Your task to perform on an android device: change your default location settings in chrome Image 0: 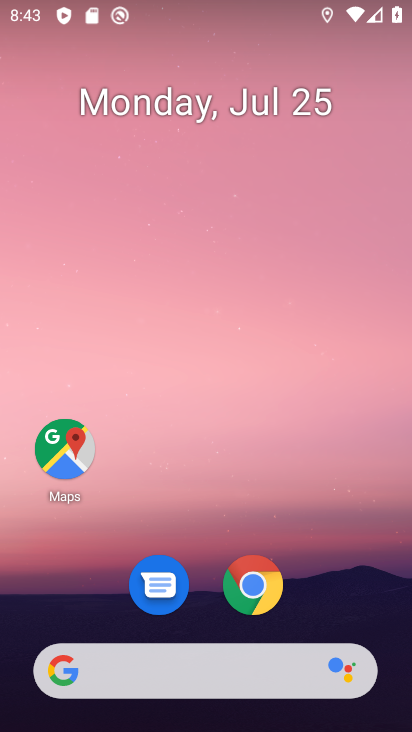
Step 0: click (253, 592)
Your task to perform on an android device: change your default location settings in chrome Image 1: 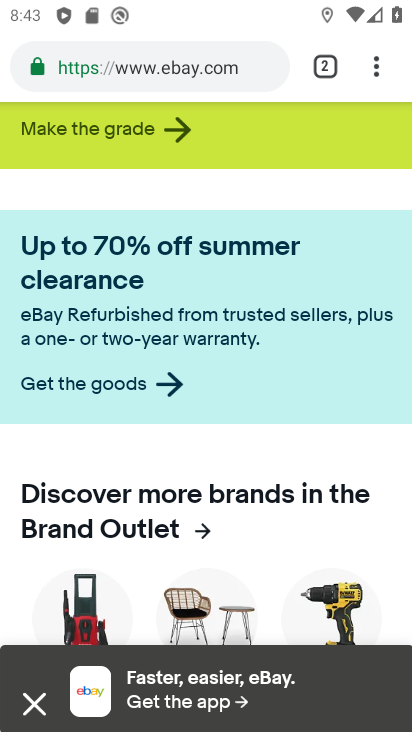
Step 1: drag from (373, 66) to (197, 585)
Your task to perform on an android device: change your default location settings in chrome Image 2: 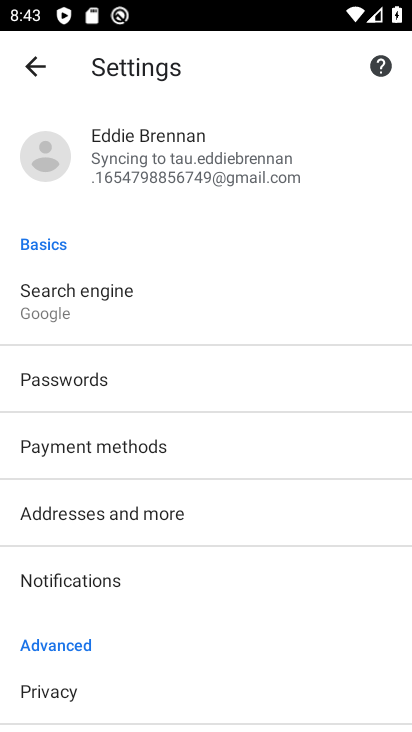
Step 2: drag from (170, 644) to (321, 267)
Your task to perform on an android device: change your default location settings in chrome Image 3: 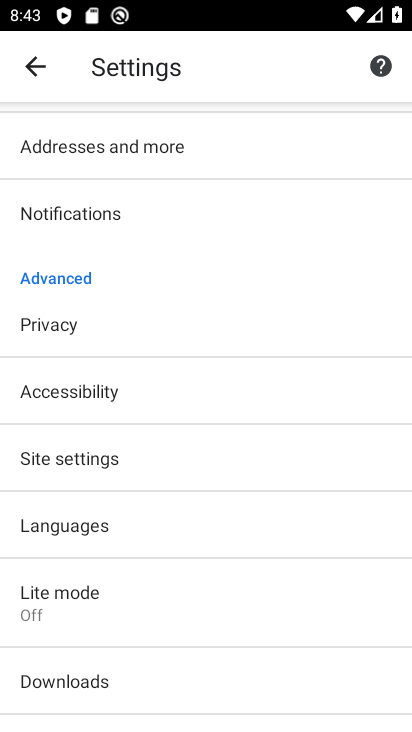
Step 3: click (105, 460)
Your task to perform on an android device: change your default location settings in chrome Image 4: 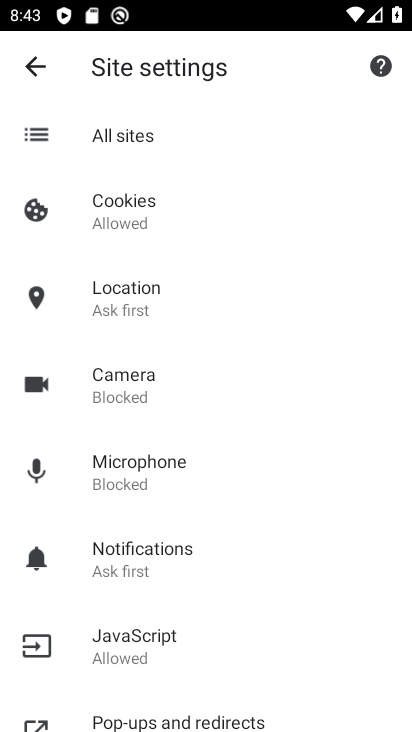
Step 4: click (153, 298)
Your task to perform on an android device: change your default location settings in chrome Image 5: 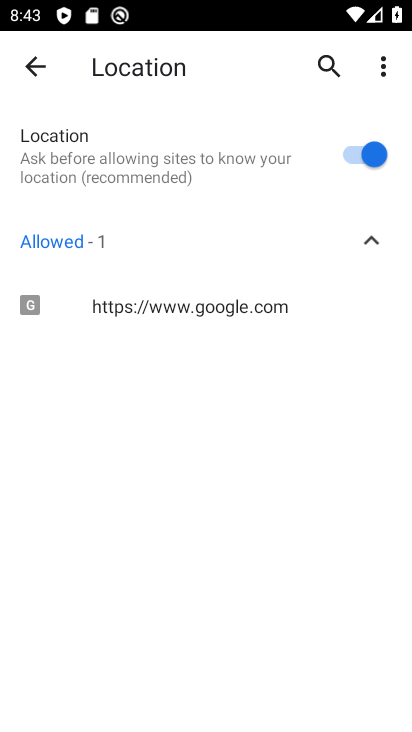
Step 5: click (354, 155)
Your task to perform on an android device: change your default location settings in chrome Image 6: 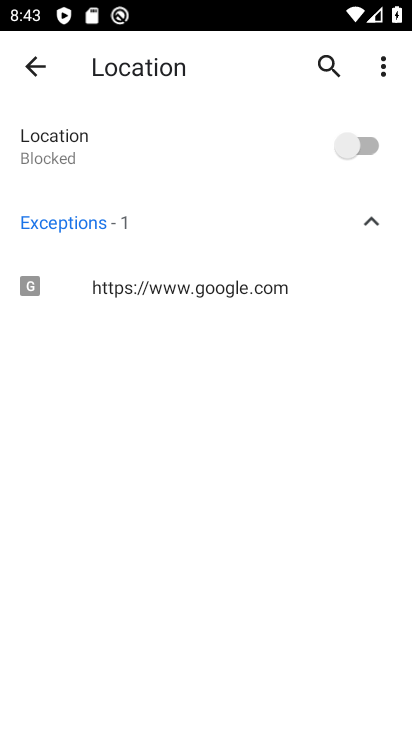
Step 6: task complete